Your task to perform on an android device: toggle pop-ups in chrome Image 0: 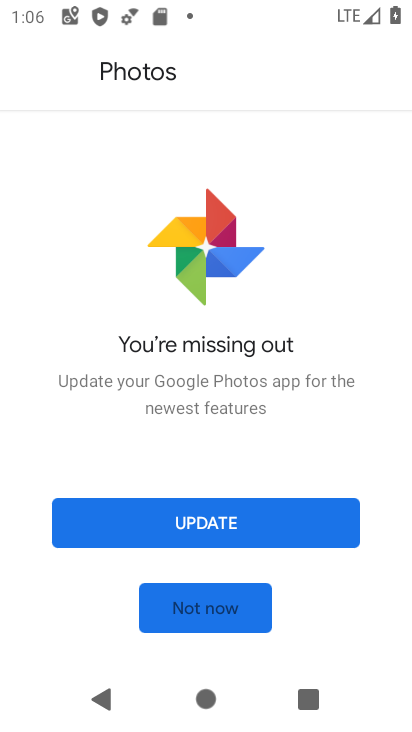
Step 0: press home button
Your task to perform on an android device: toggle pop-ups in chrome Image 1: 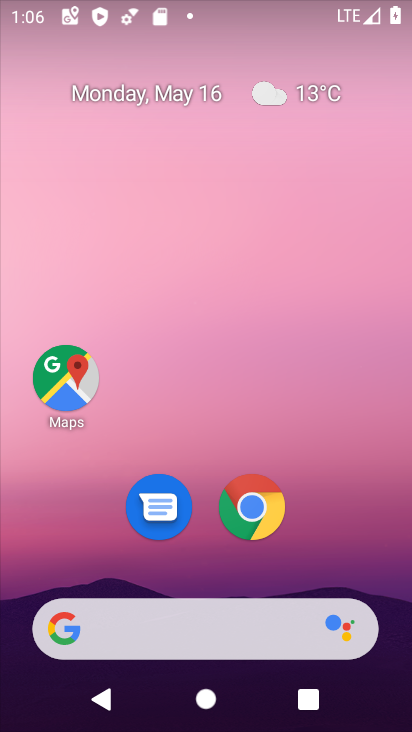
Step 1: drag from (322, 476) to (241, 77)
Your task to perform on an android device: toggle pop-ups in chrome Image 2: 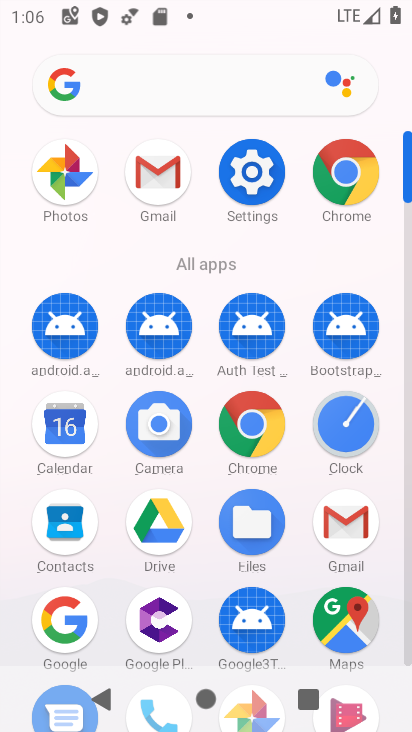
Step 2: click (352, 158)
Your task to perform on an android device: toggle pop-ups in chrome Image 3: 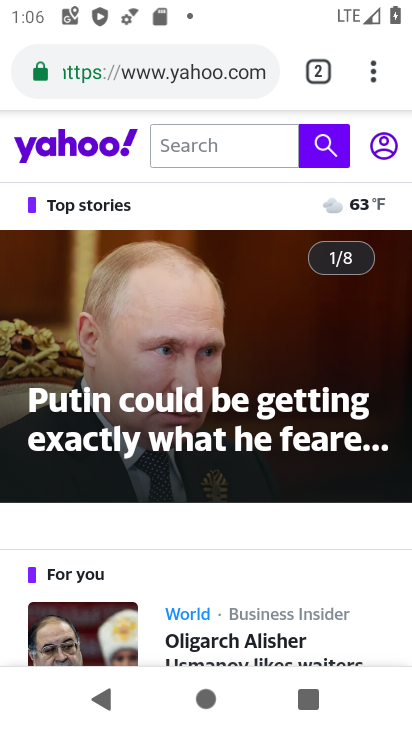
Step 3: click (367, 72)
Your task to perform on an android device: toggle pop-ups in chrome Image 4: 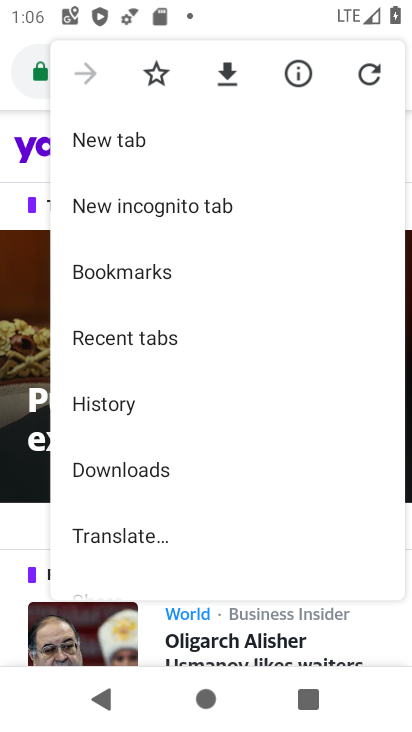
Step 4: drag from (219, 440) to (187, 119)
Your task to perform on an android device: toggle pop-ups in chrome Image 5: 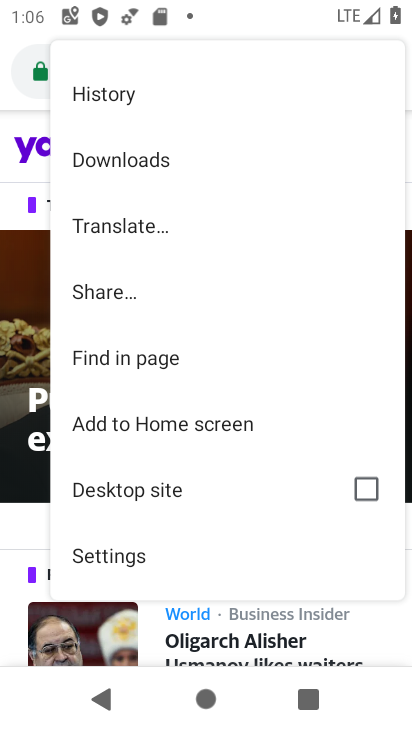
Step 5: click (130, 545)
Your task to perform on an android device: toggle pop-ups in chrome Image 6: 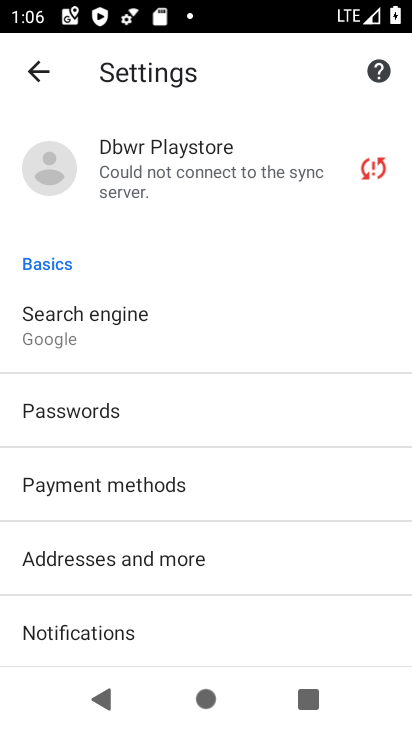
Step 6: drag from (222, 538) to (202, 167)
Your task to perform on an android device: toggle pop-ups in chrome Image 7: 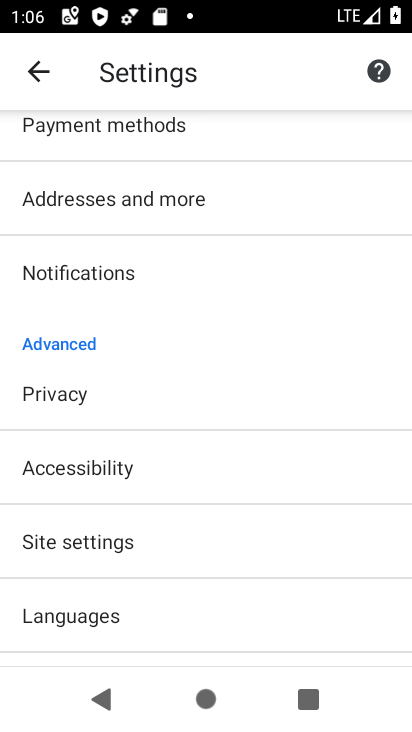
Step 7: drag from (169, 533) to (171, 404)
Your task to perform on an android device: toggle pop-ups in chrome Image 8: 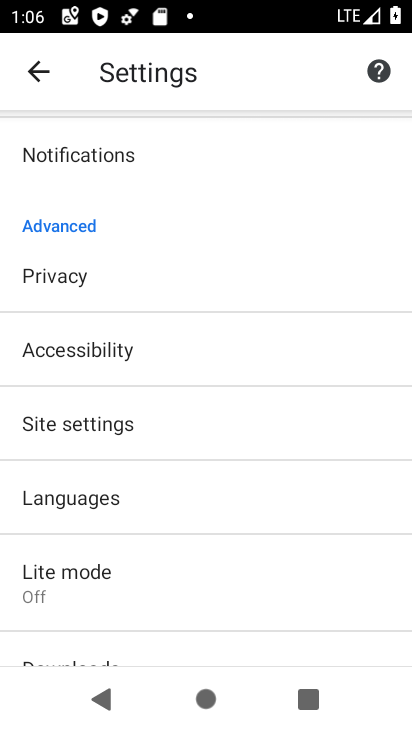
Step 8: click (138, 423)
Your task to perform on an android device: toggle pop-ups in chrome Image 9: 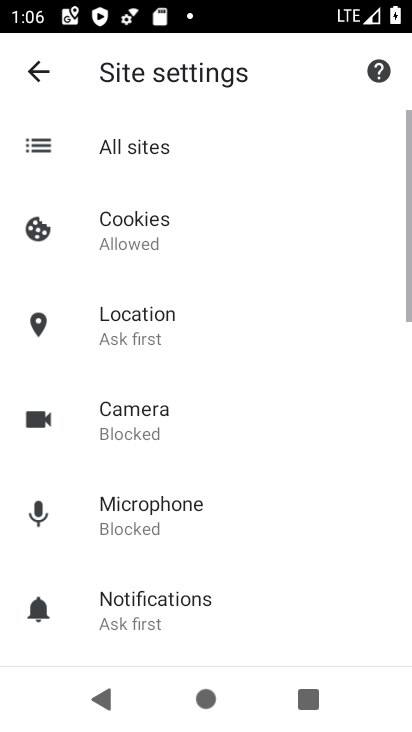
Step 9: drag from (224, 549) to (213, 245)
Your task to perform on an android device: toggle pop-ups in chrome Image 10: 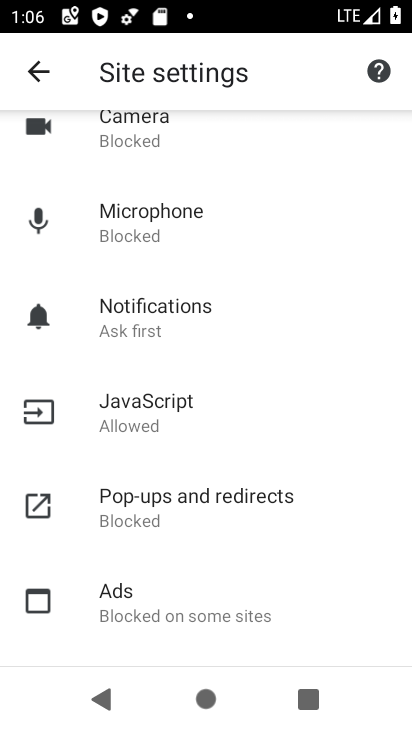
Step 10: click (227, 504)
Your task to perform on an android device: toggle pop-ups in chrome Image 11: 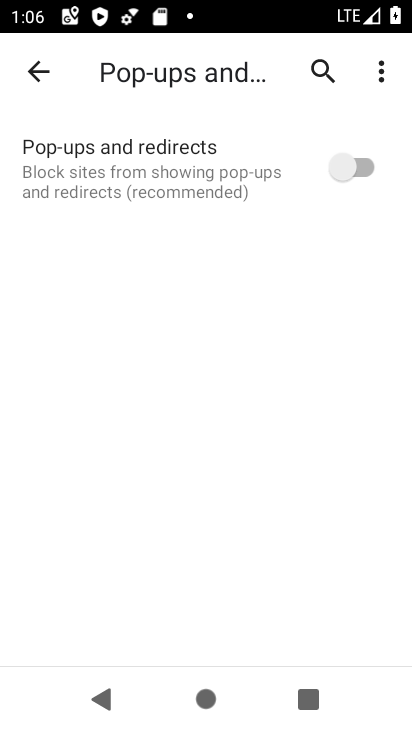
Step 11: click (344, 173)
Your task to perform on an android device: toggle pop-ups in chrome Image 12: 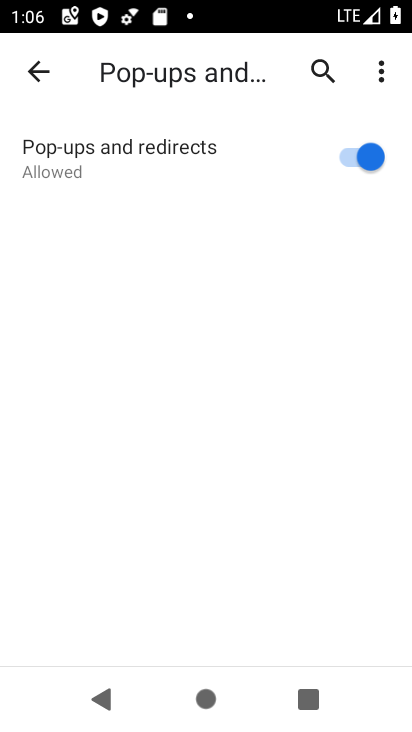
Step 12: task complete